Your task to perform on an android device: delete browsing data in the chrome app Image 0: 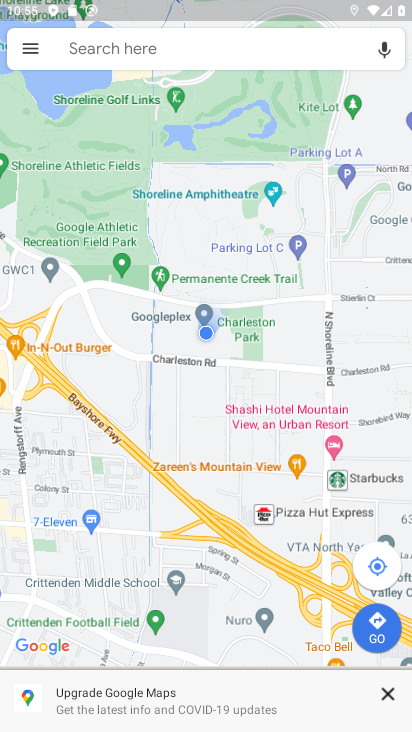
Step 0: press home button
Your task to perform on an android device: delete browsing data in the chrome app Image 1: 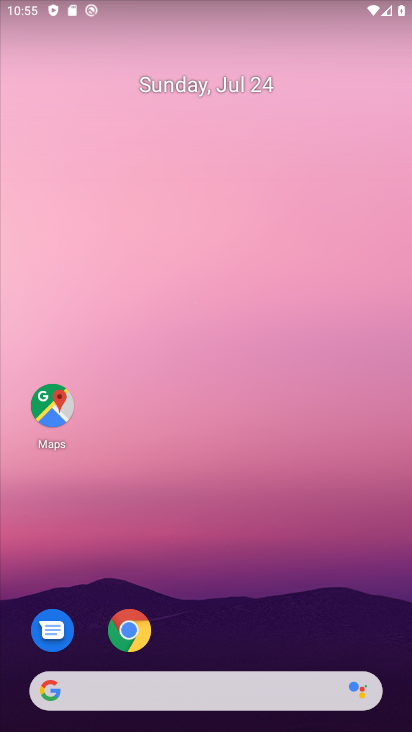
Step 1: click (124, 619)
Your task to perform on an android device: delete browsing data in the chrome app Image 2: 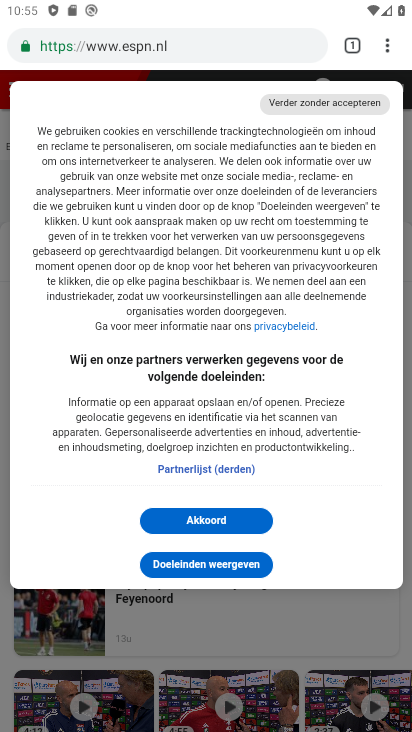
Step 2: click (390, 35)
Your task to perform on an android device: delete browsing data in the chrome app Image 3: 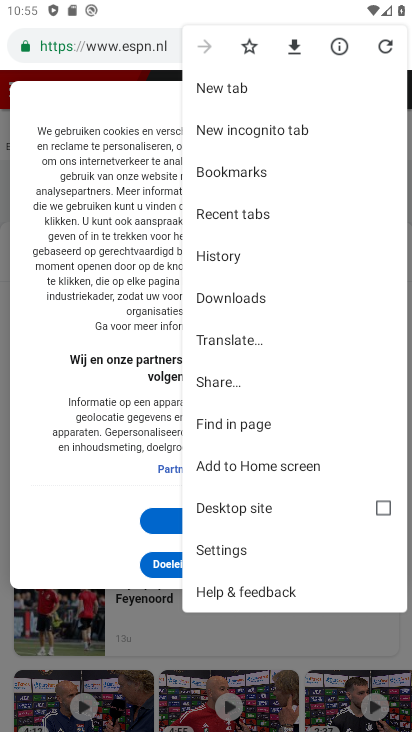
Step 3: click (217, 255)
Your task to perform on an android device: delete browsing data in the chrome app Image 4: 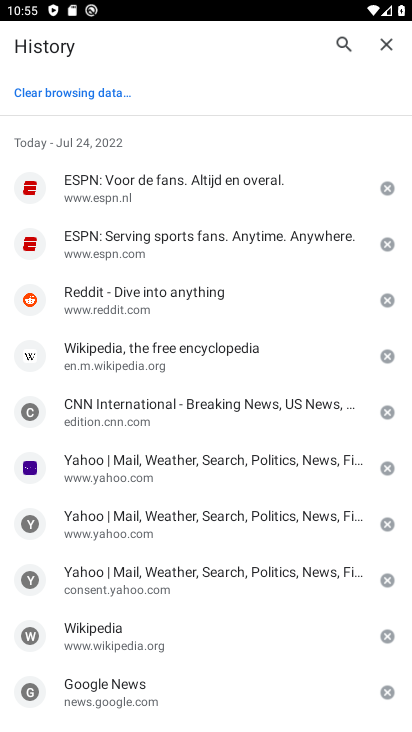
Step 4: click (80, 91)
Your task to perform on an android device: delete browsing data in the chrome app Image 5: 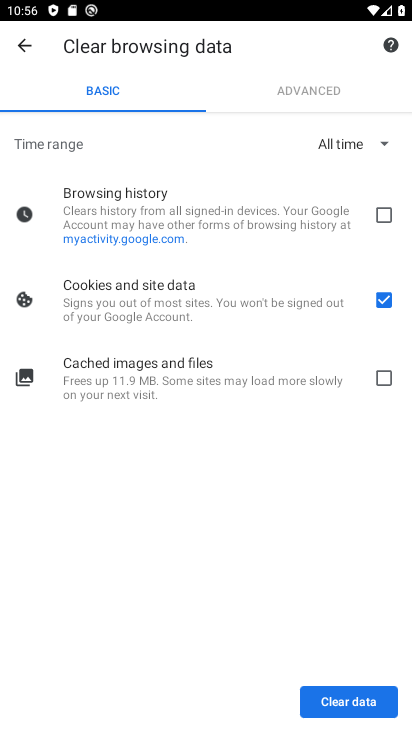
Step 5: click (387, 197)
Your task to perform on an android device: delete browsing data in the chrome app Image 6: 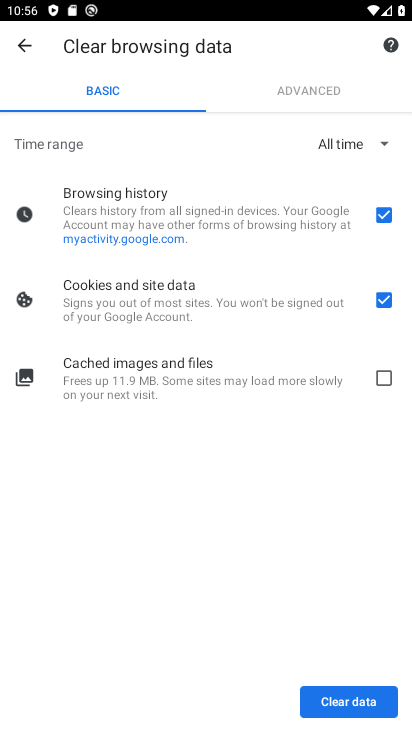
Step 6: click (390, 379)
Your task to perform on an android device: delete browsing data in the chrome app Image 7: 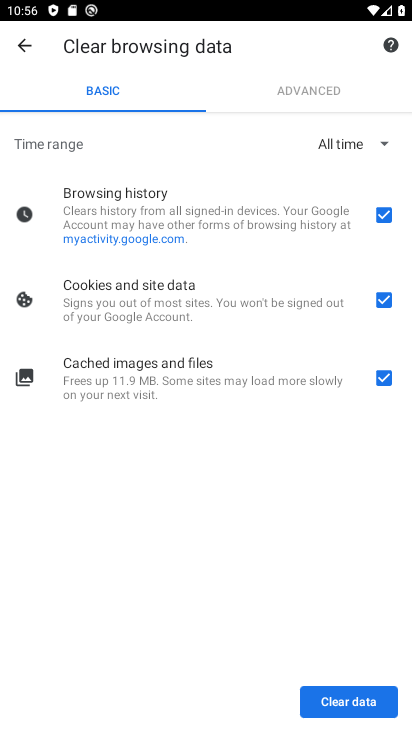
Step 7: click (339, 700)
Your task to perform on an android device: delete browsing data in the chrome app Image 8: 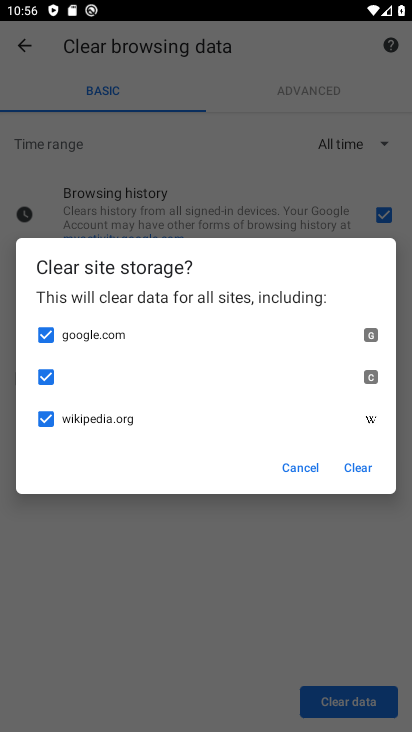
Step 8: click (360, 472)
Your task to perform on an android device: delete browsing data in the chrome app Image 9: 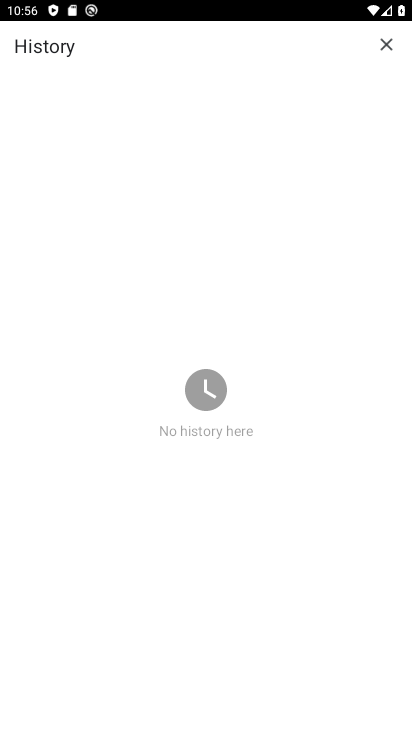
Step 9: task complete